Your task to perform on an android device: set an alarm Image 0: 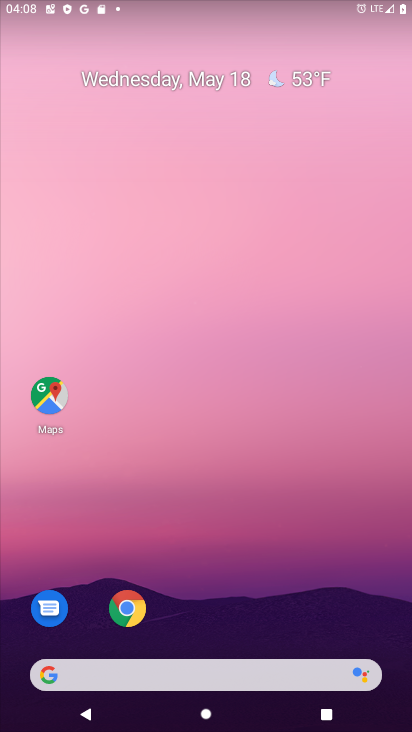
Step 0: drag from (318, 618) to (321, 21)
Your task to perform on an android device: set an alarm Image 1: 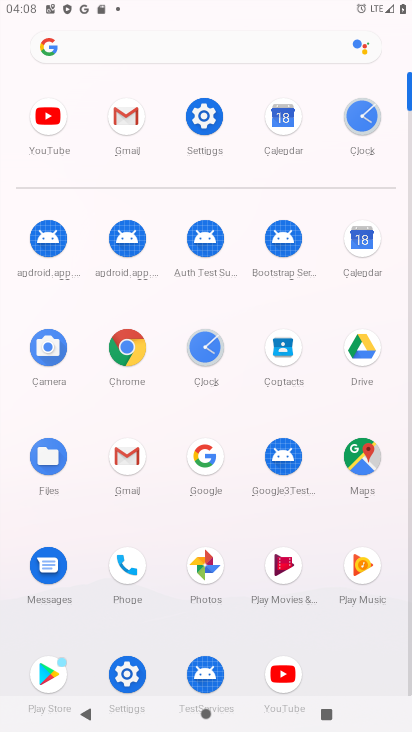
Step 1: click (363, 121)
Your task to perform on an android device: set an alarm Image 2: 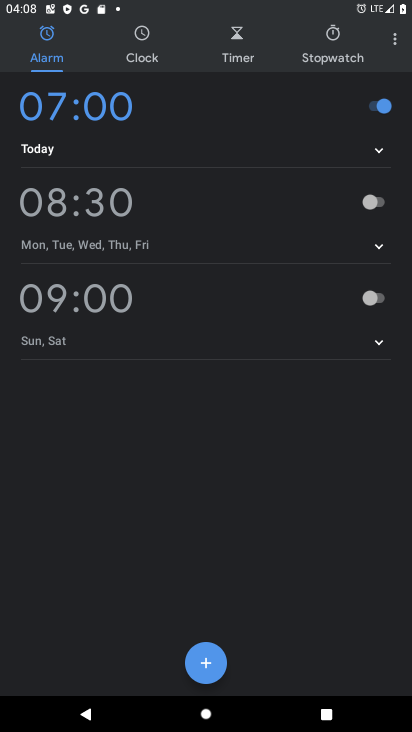
Step 2: click (204, 665)
Your task to perform on an android device: set an alarm Image 3: 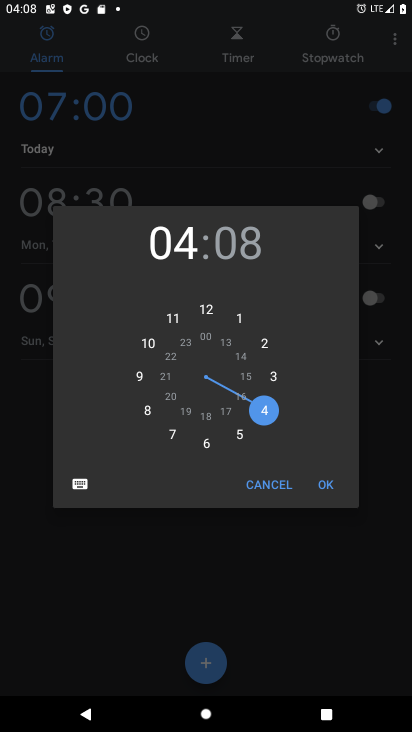
Step 3: click (234, 434)
Your task to perform on an android device: set an alarm Image 4: 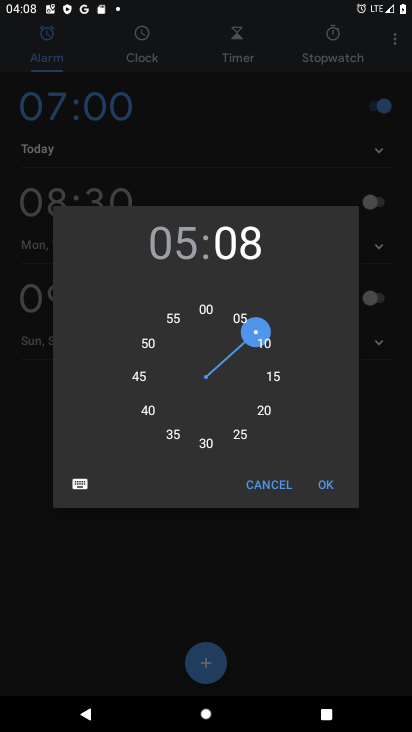
Step 4: click (208, 319)
Your task to perform on an android device: set an alarm Image 5: 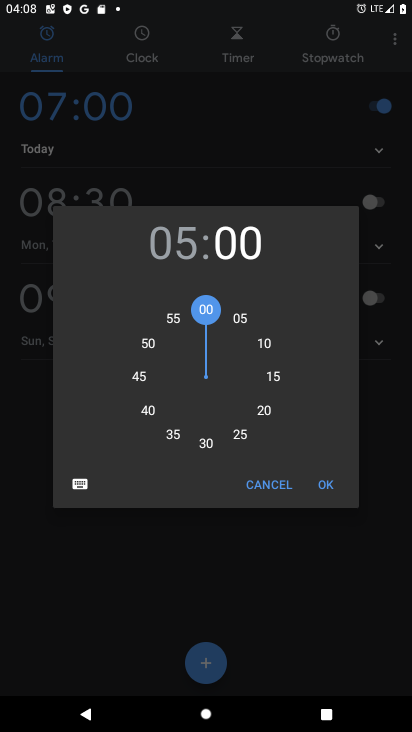
Step 5: click (325, 489)
Your task to perform on an android device: set an alarm Image 6: 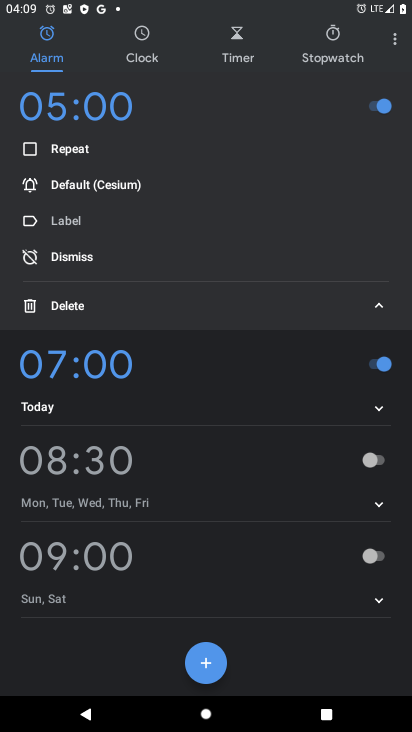
Step 6: task complete